Your task to perform on an android device: Play the last video I watched on Youtube Image 0: 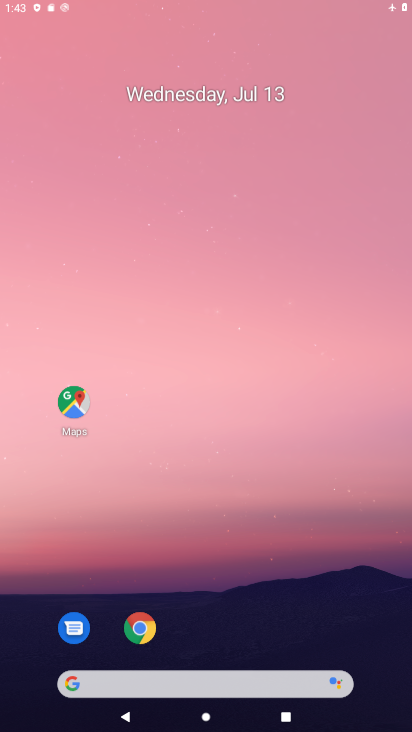
Step 0: press home button
Your task to perform on an android device: Play the last video I watched on Youtube Image 1: 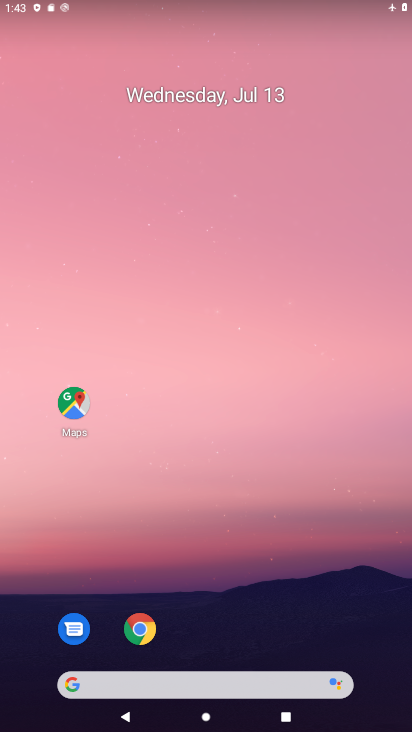
Step 1: drag from (200, 695) to (222, 127)
Your task to perform on an android device: Play the last video I watched on Youtube Image 2: 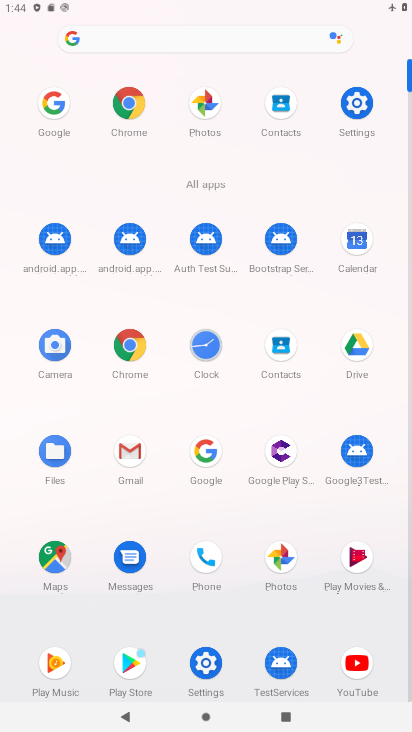
Step 2: click (355, 670)
Your task to perform on an android device: Play the last video I watched on Youtube Image 3: 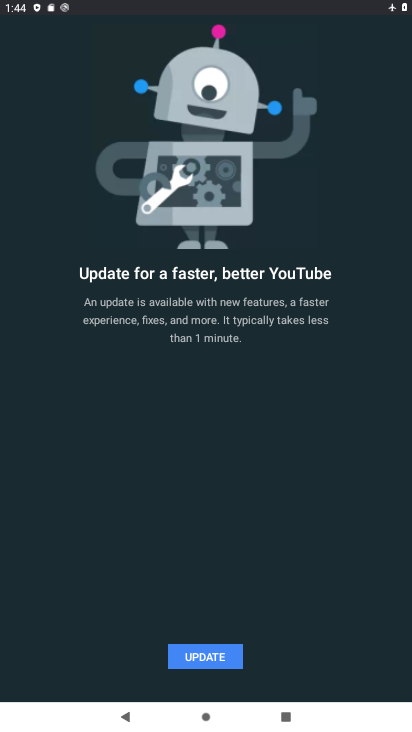
Step 3: drag from (212, 662) to (139, 662)
Your task to perform on an android device: Play the last video I watched on Youtube Image 4: 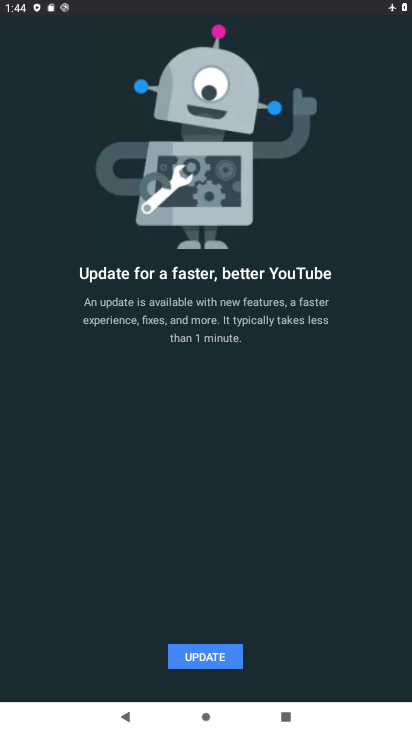
Step 4: click (197, 659)
Your task to perform on an android device: Play the last video I watched on Youtube Image 5: 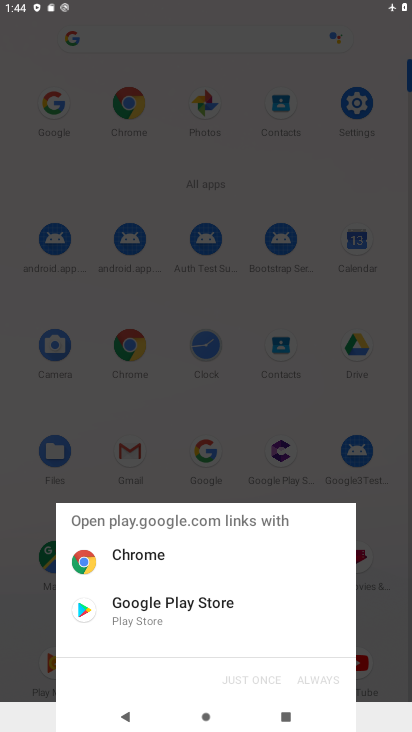
Step 5: click (174, 626)
Your task to perform on an android device: Play the last video I watched on Youtube Image 6: 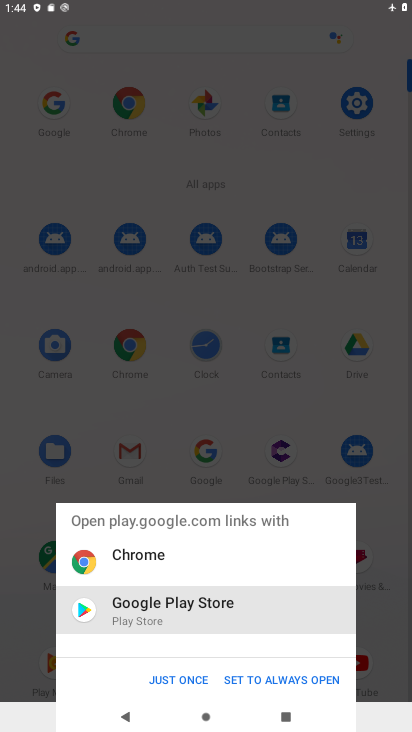
Step 6: click (194, 681)
Your task to perform on an android device: Play the last video I watched on Youtube Image 7: 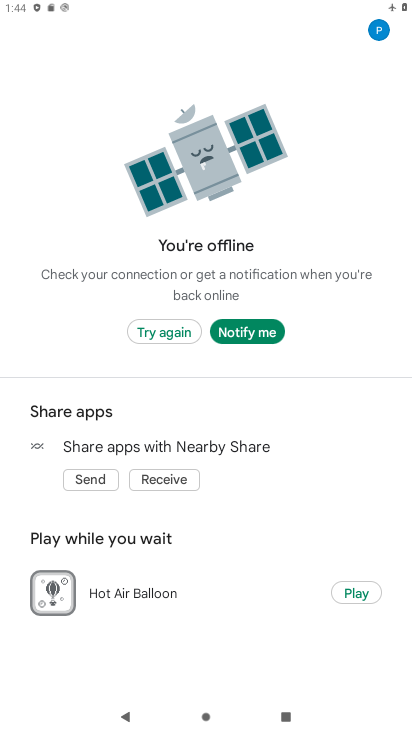
Step 7: task complete